Your task to perform on an android device: all mails in gmail Image 0: 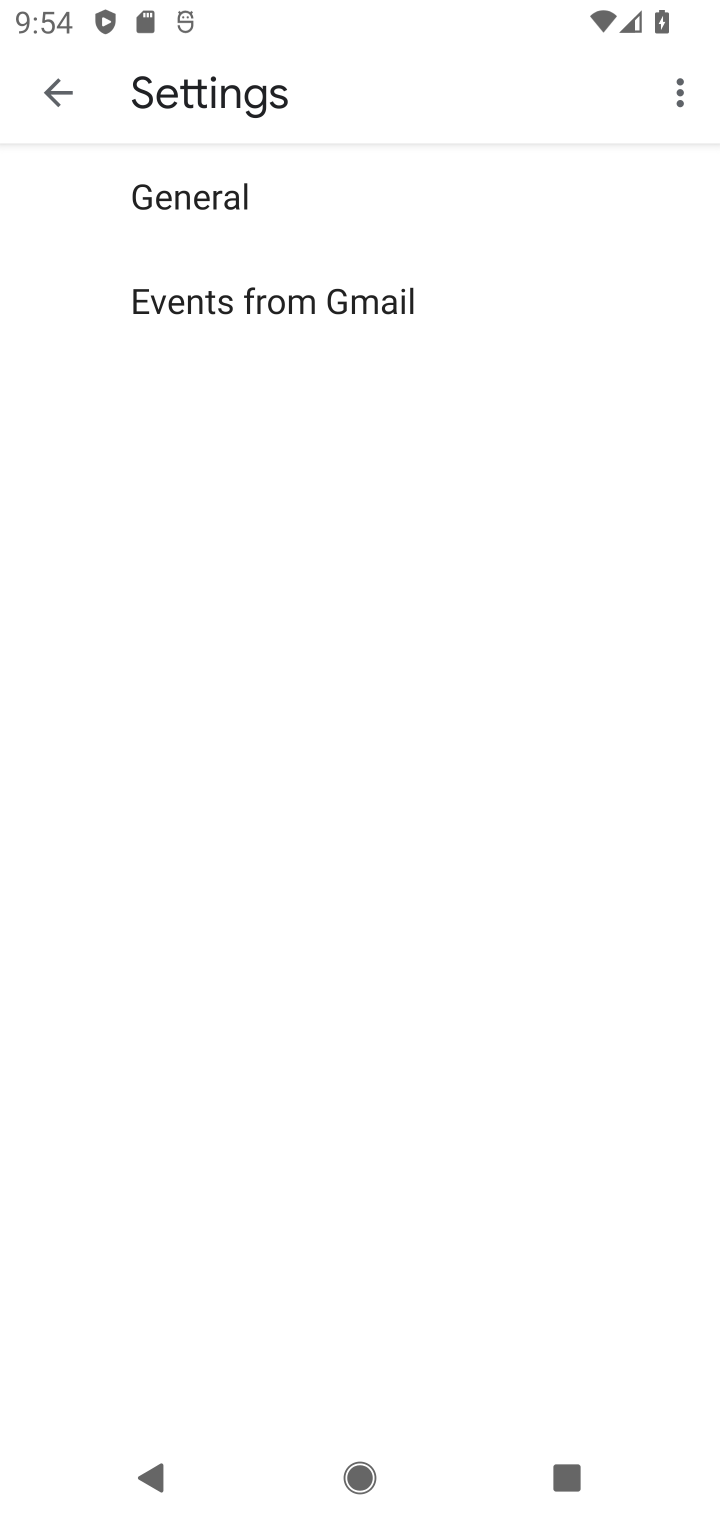
Step 0: press home button
Your task to perform on an android device: all mails in gmail Image 1: 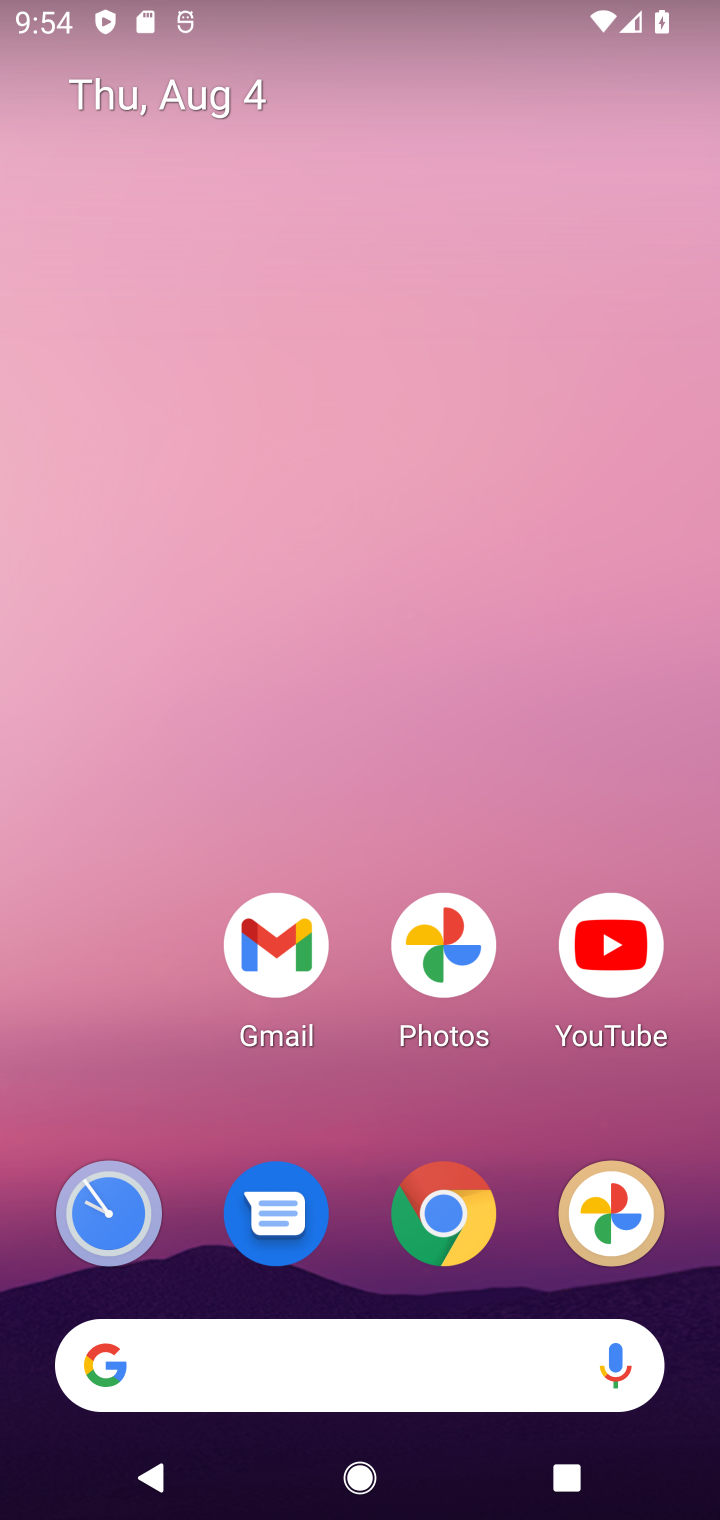
Step 1: drag from (368, 1250) to (713, 740)
Your task to perform on an android device: all mails in gmail Image 2: 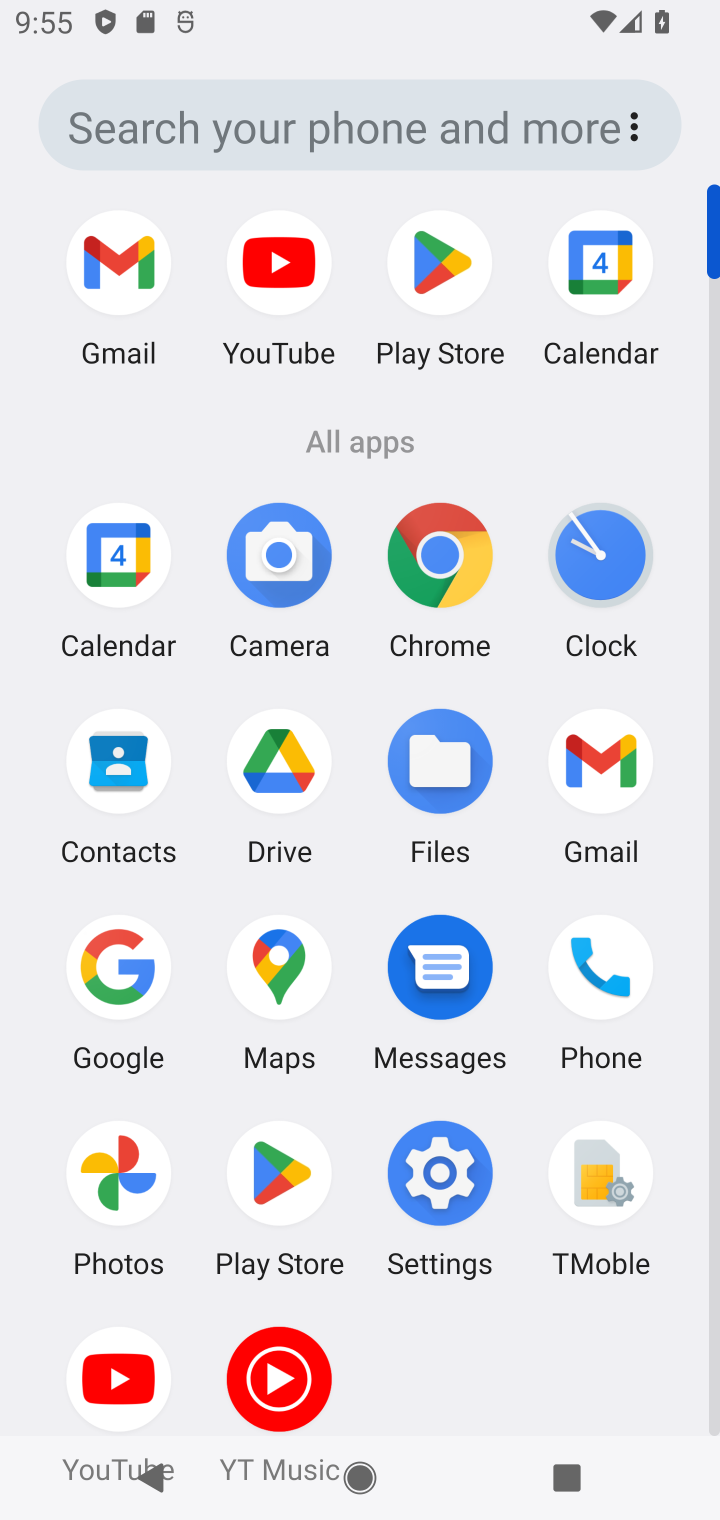
Step 2: click (609, 774)
Your task to perform on an android device: all mails in gmail Image 3: 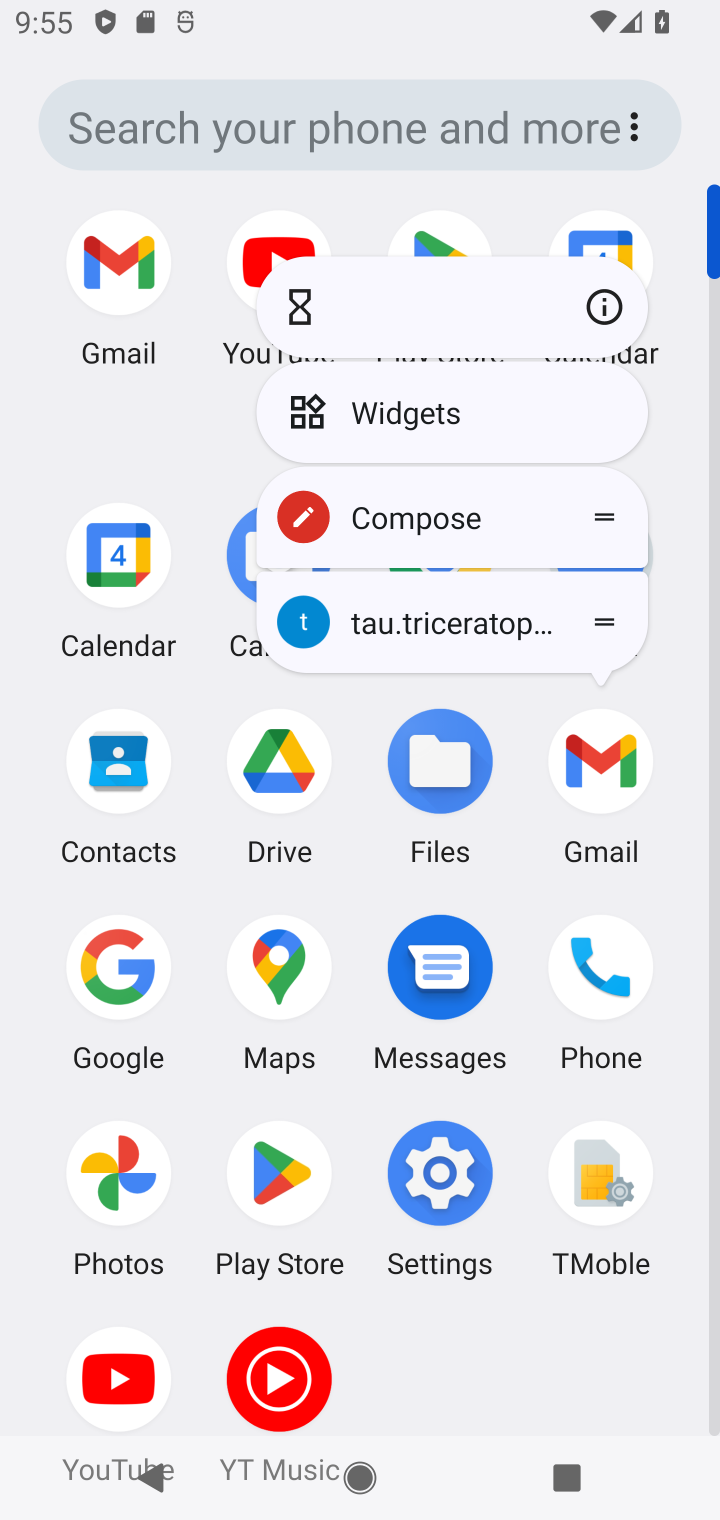
Step 3: click (581, 814)
Your task to perform on an android device: all mails in gmail Image 4: 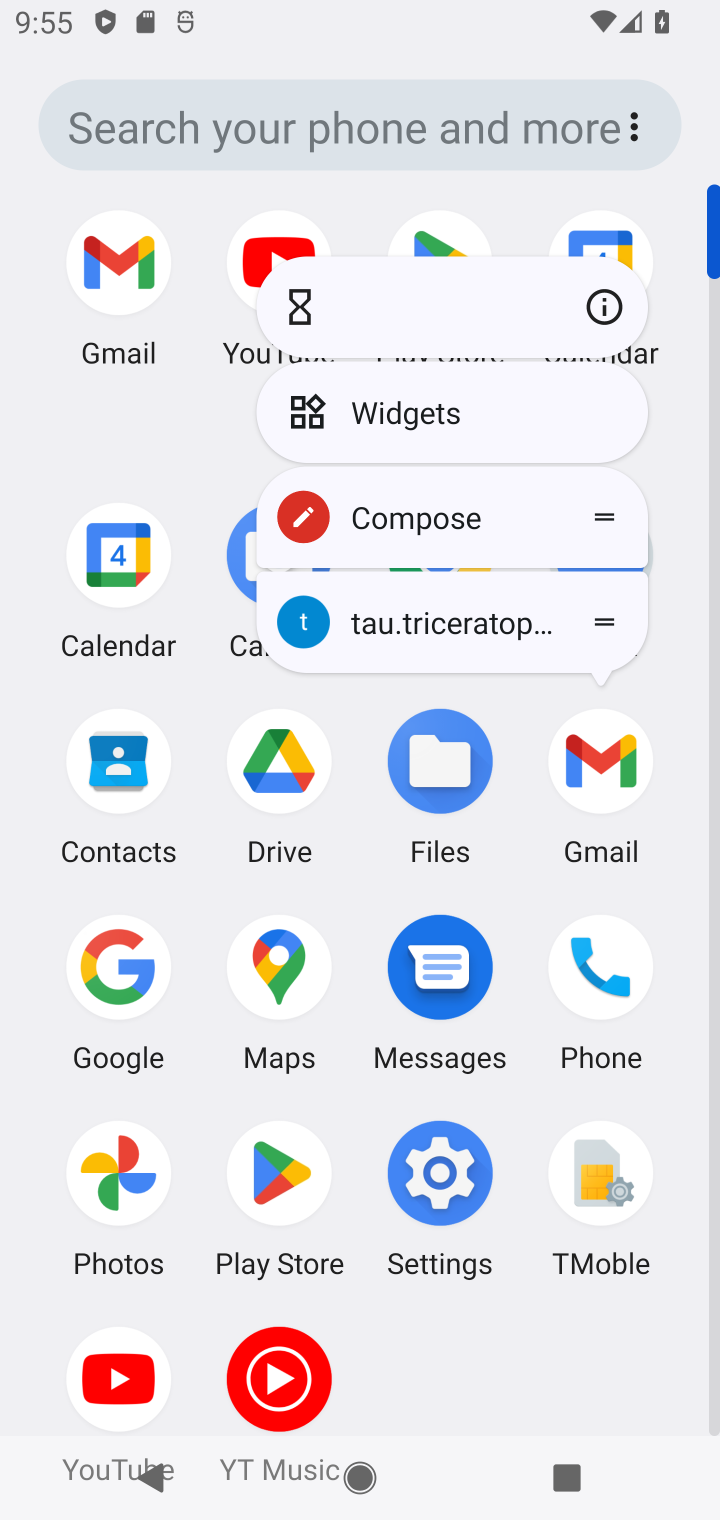
Step 4: click (594, 781)
Your task to perform on an android device: all mails in gmail Image 5: 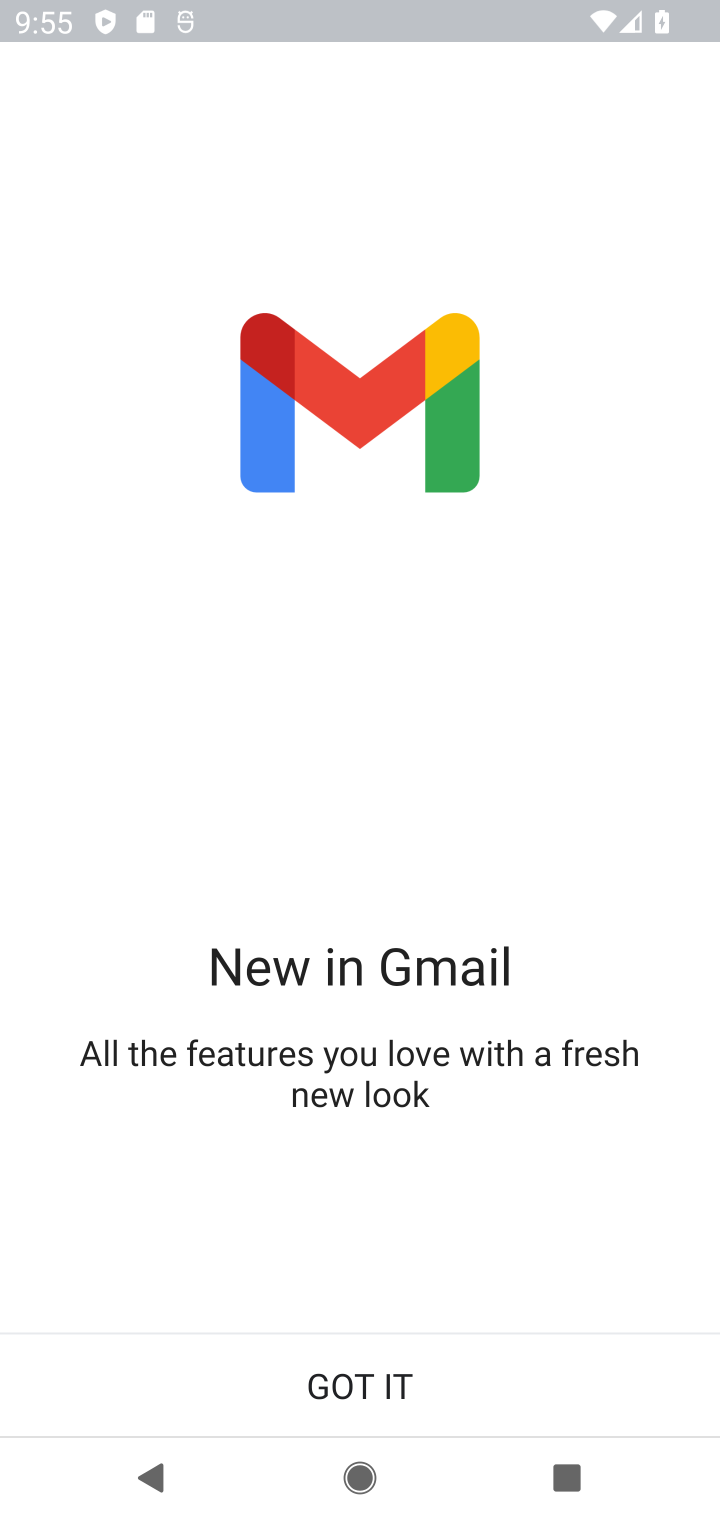
Step 5: click (406, 1344)
Your task to perform on an android device: all mails in gmail Image 6: 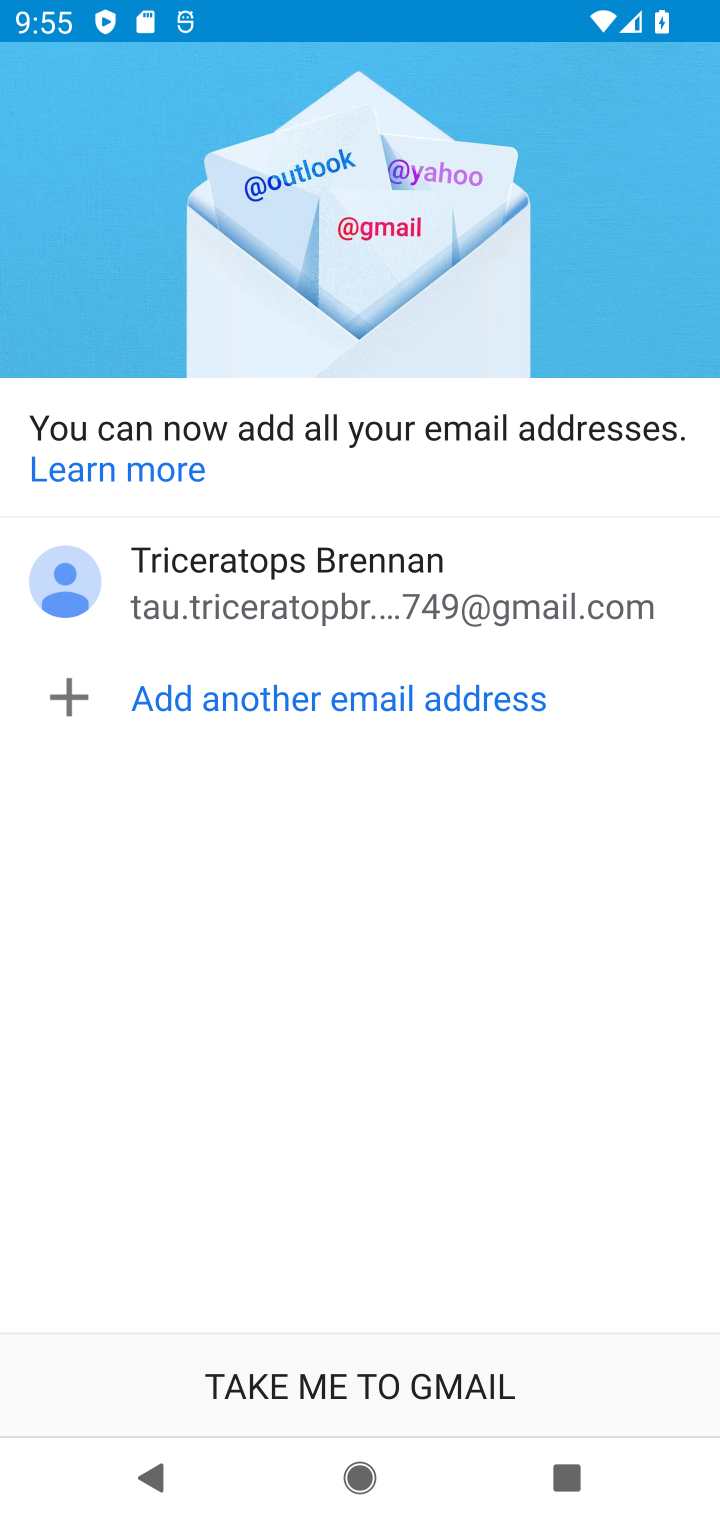
Step 6: click (393, 1381)
Your task to perform on an android device: all mails in gmail Image 7: 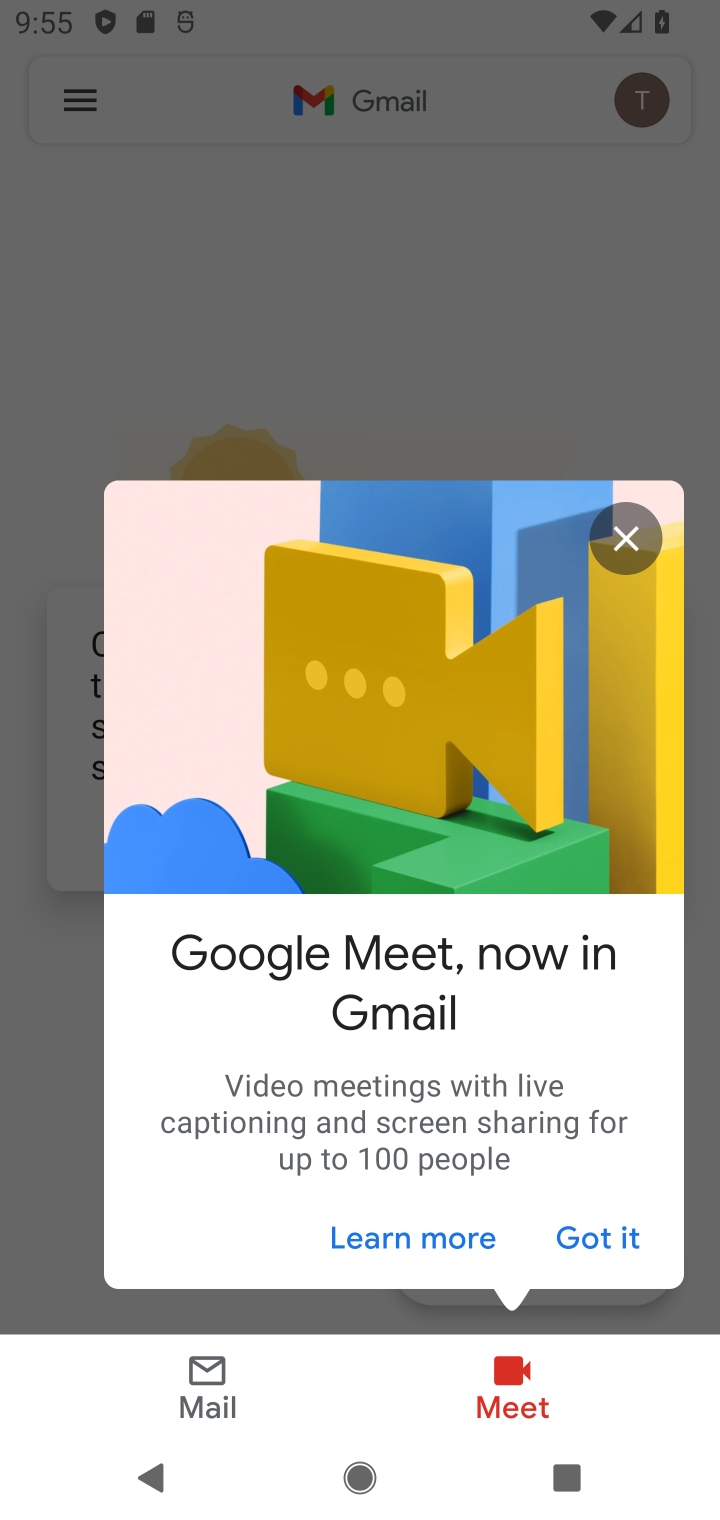
Step 7: click (603, 1248)
Your task to perform on an android device: all mails in gmail Image 8: 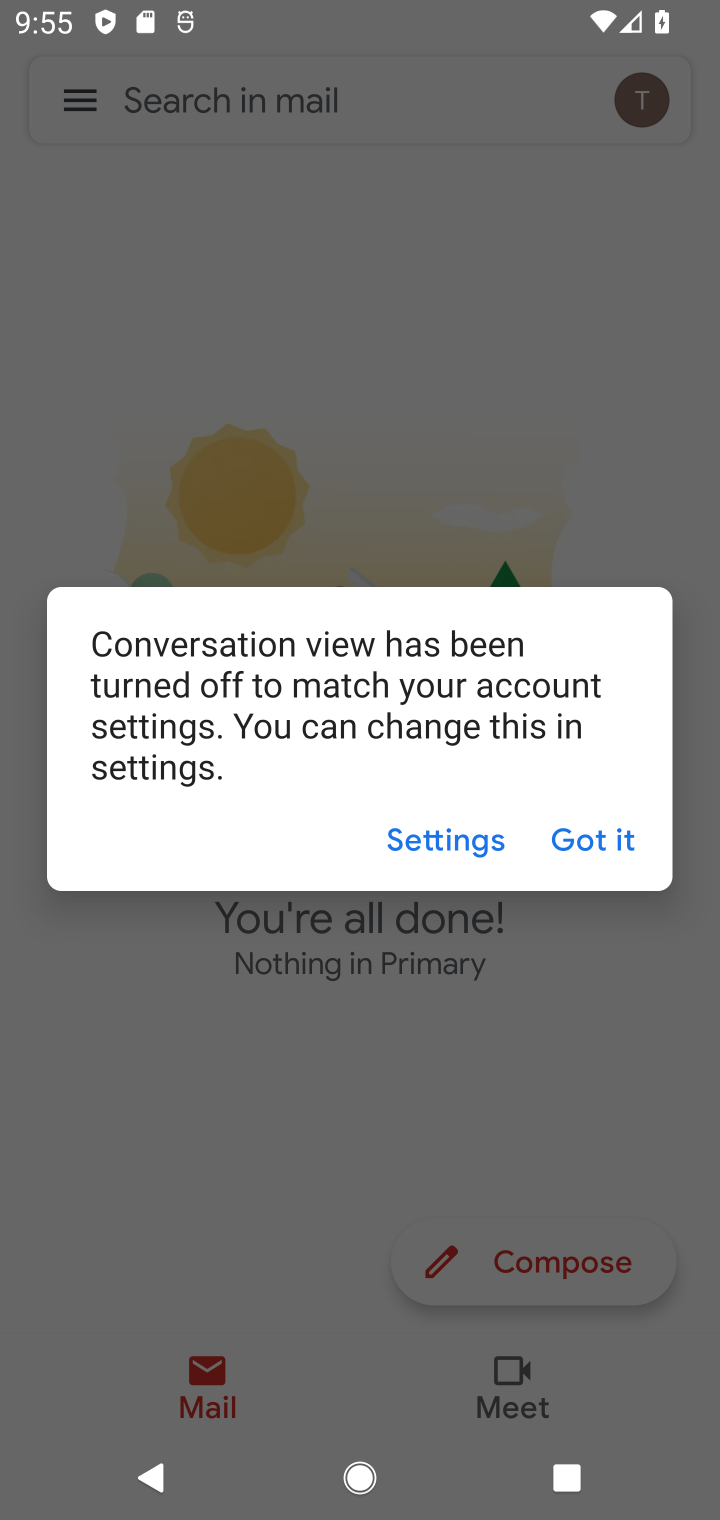
Step 8: click (588, 845)
Your task to perform on an android device: all mails in gmail Image 9: 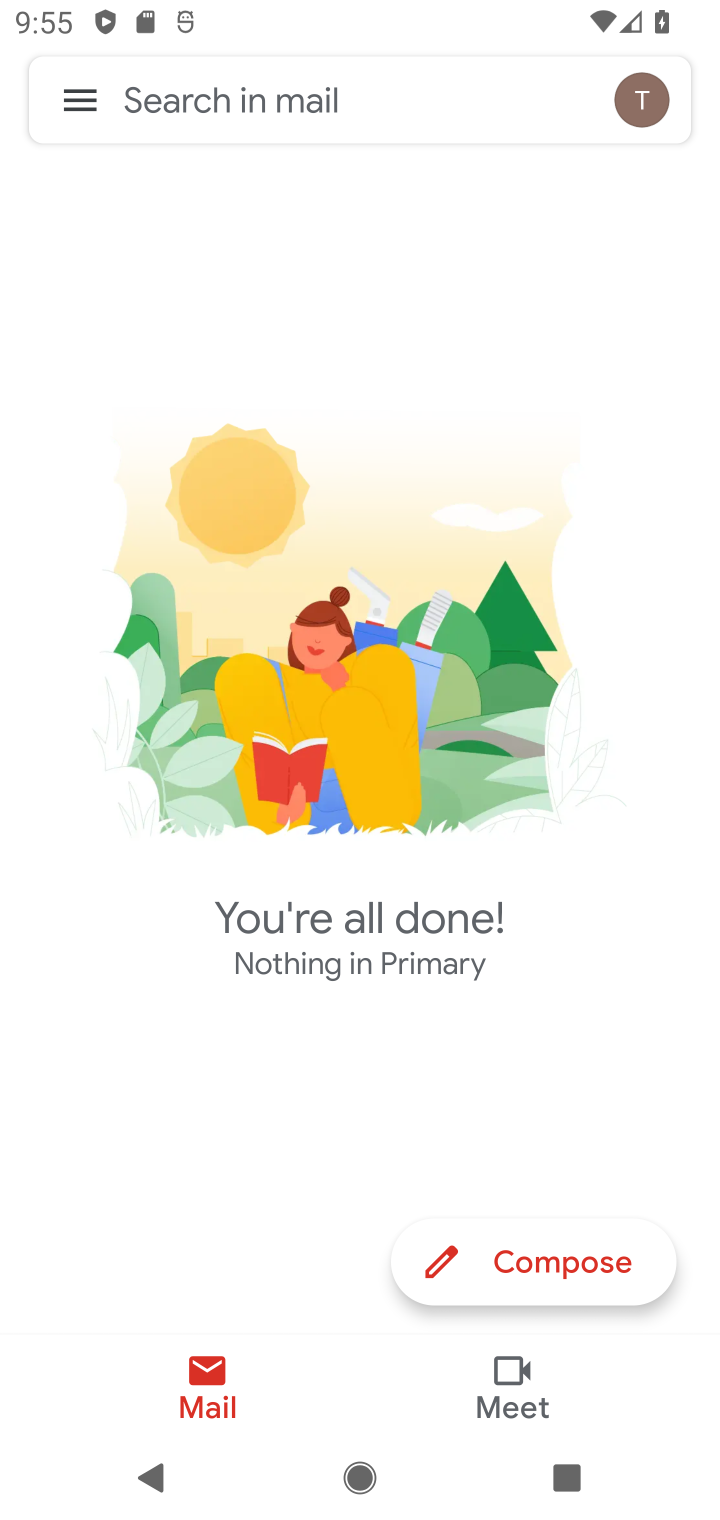
Step 9: click (71, 109)
Your task to perform on an android device: all mails in gmail Image 10: 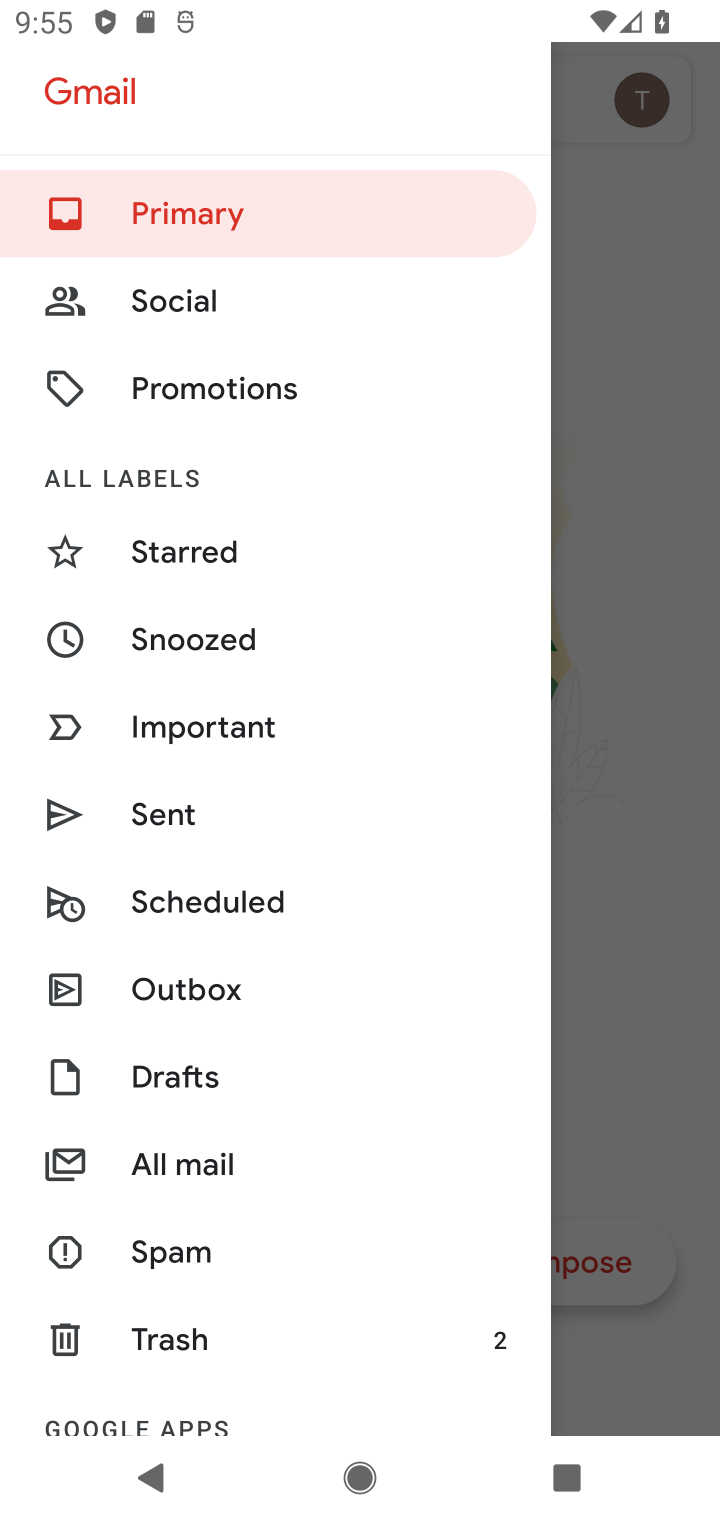
Step 10: drag from (167, 1100) to (184, 782)
Your task to perform on an android device: all mails in gmail Image 11: 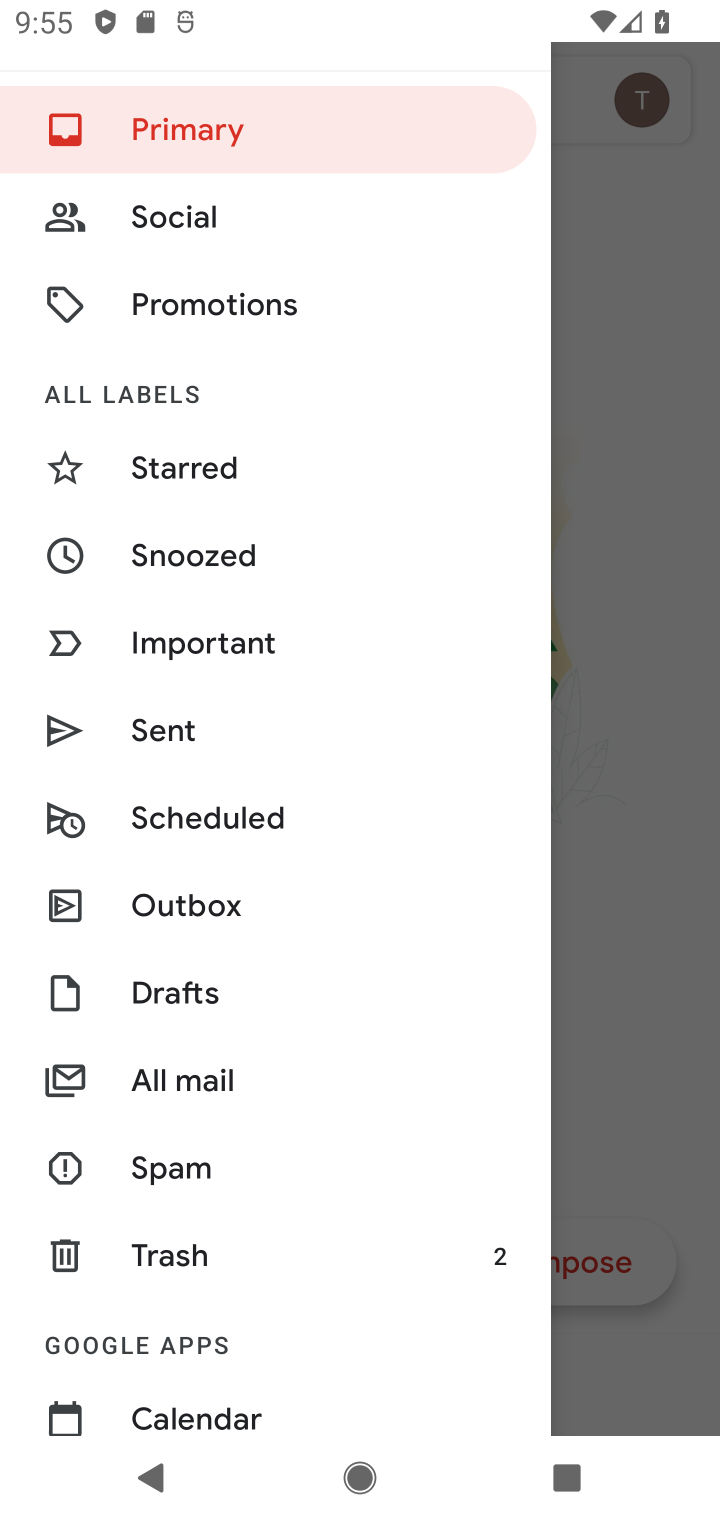
Step 11: click (201, 1089)
Your task to perform on an android device: all mails in gmail Image 12: 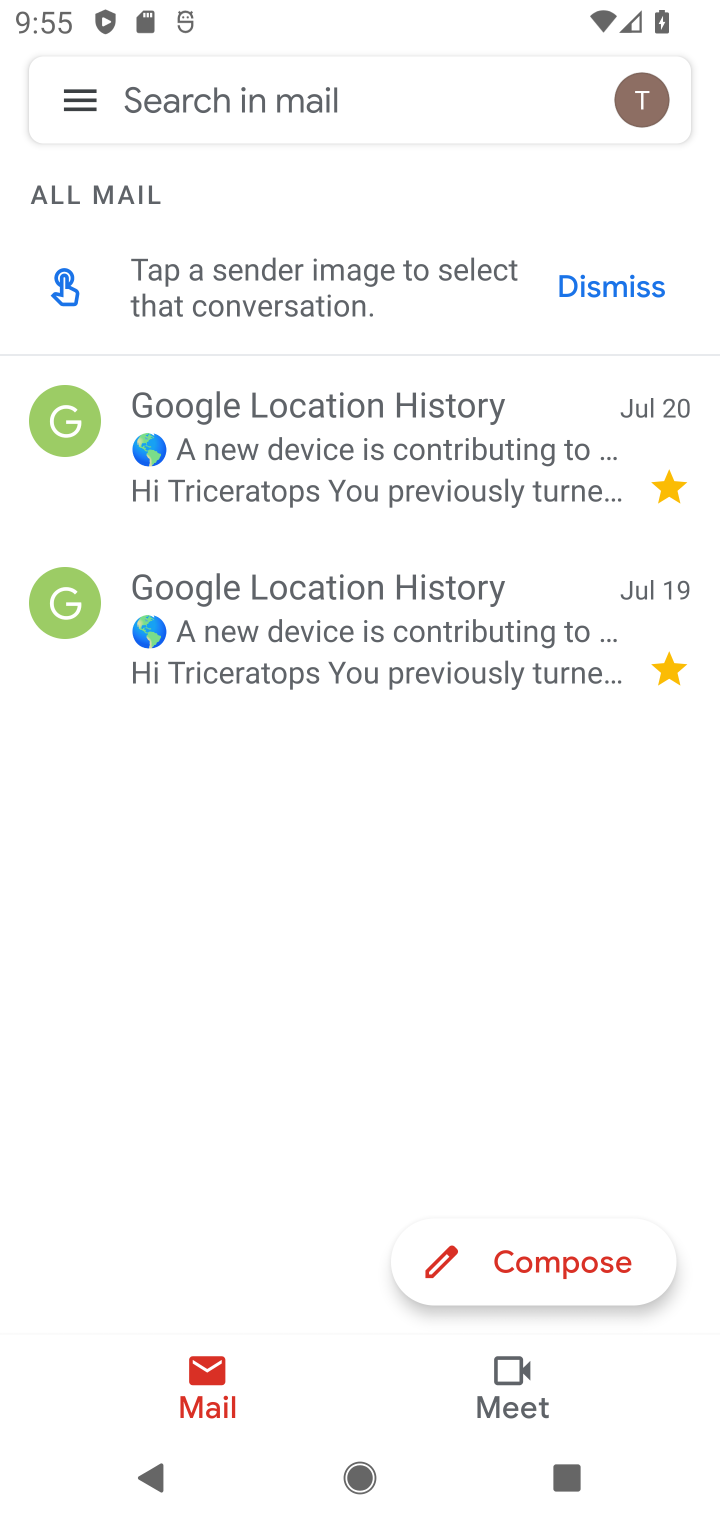
Step 12: task complete